Your task to perform on an android device: Open wifi settings Image 0: 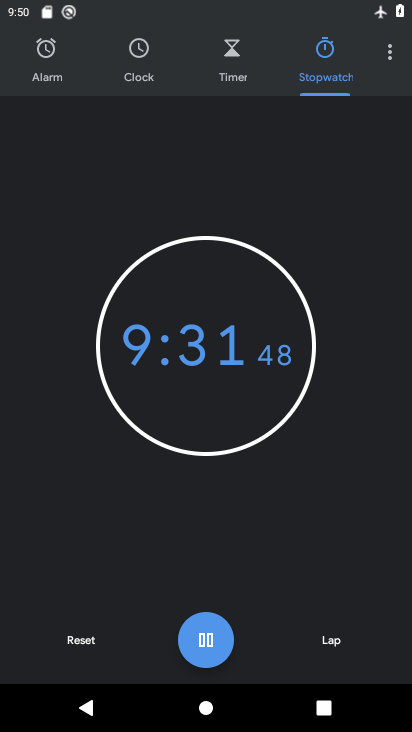
Step 0: click (71, 639)
Your task to perform on an android device: Open wifi settings Image 1: 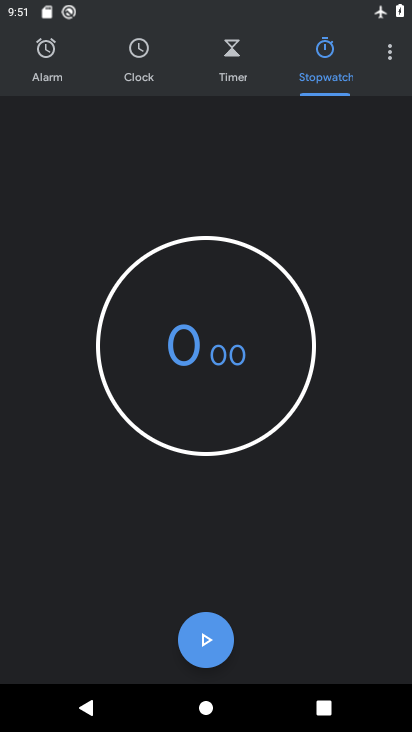
Step 1: press home button
Your task to perform on an android device: Open wifi settings Image 2: 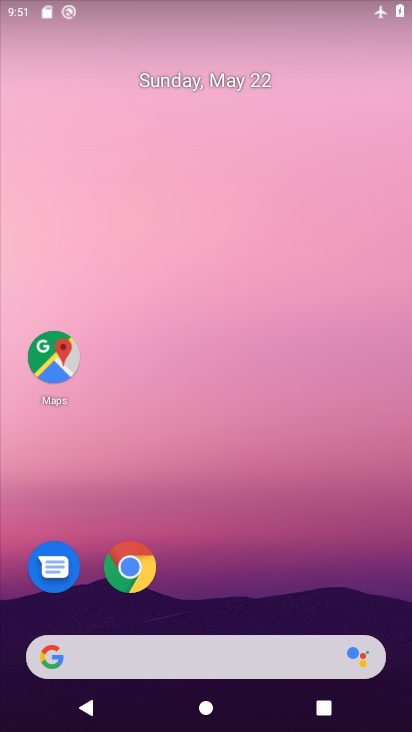
Step 2: drag from (212, 617) to (218, 64)
Your task to perform on an android device: Open wifi settings Image 3: 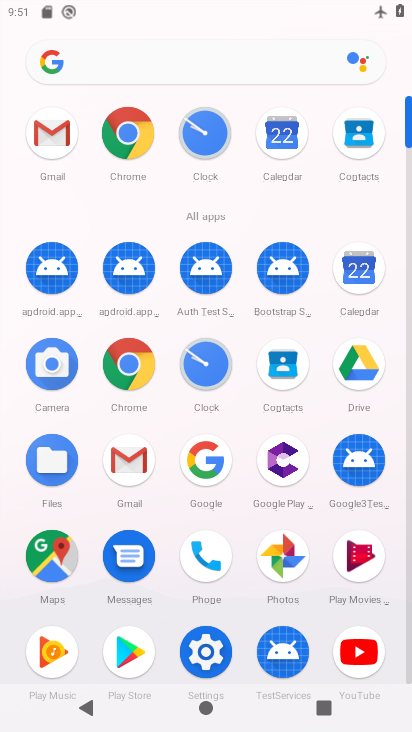
Step 3: click (205, 646)
Your task to perform on an android device: Open wifi settings Image 4: 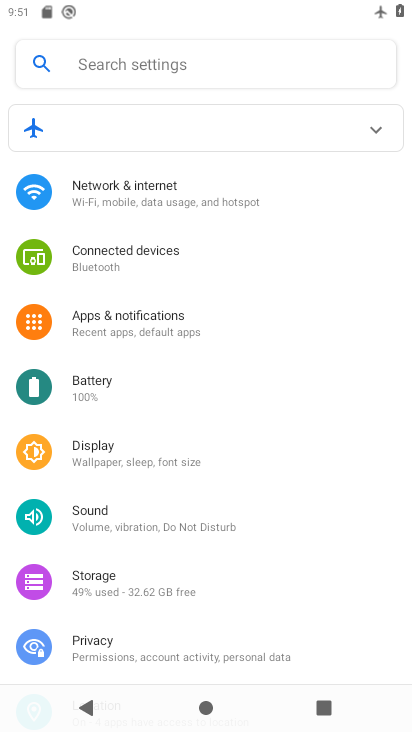
Step 4: click (130, 189)
Your task to perform on an android device: Open wifi settings Image 5: 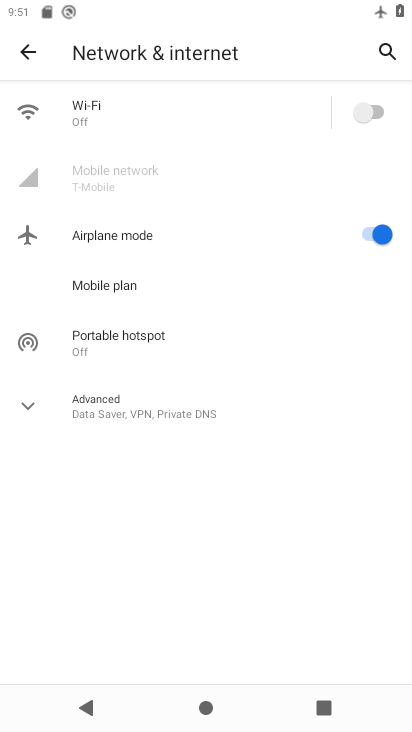
Step 5: click (117, 111)
Your task to perform on an android device: Open wifi settings Image 6: 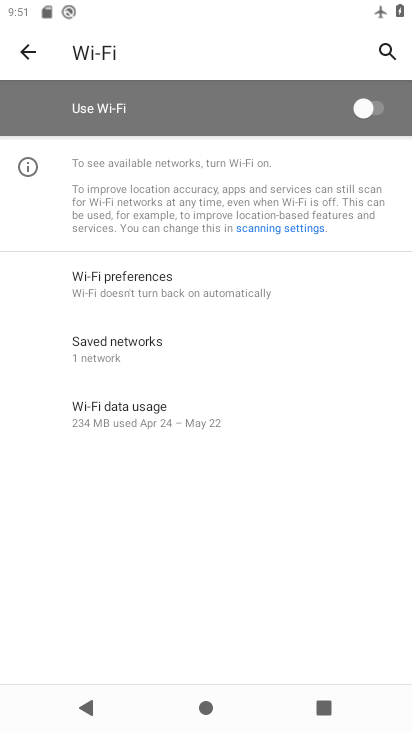
Step 6: task complete